Your task to perform on an android device: Open Yahoo.com Image 0: 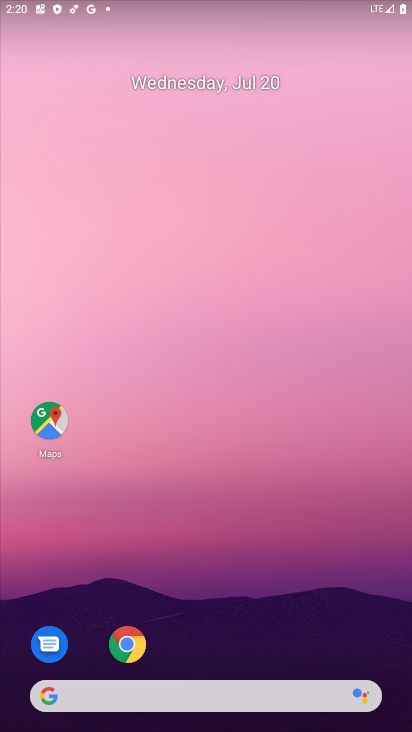
Step 0: click (128, 647)
Your task to perform on an android device: Open Yahoo.com Image 1: 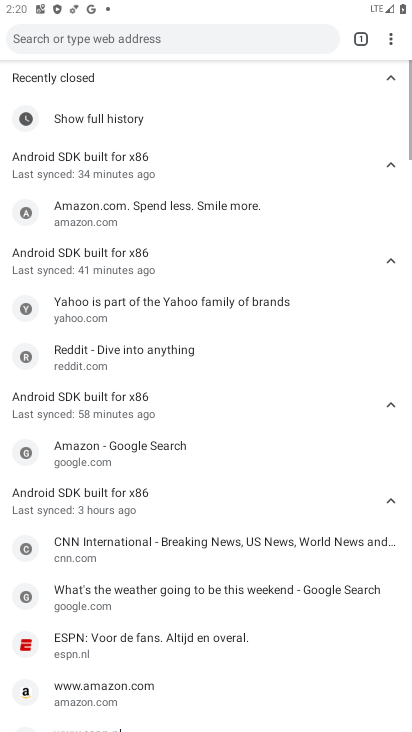
Step 1: click (181, 39)
Your task to perform on an android device: Open Yahoo.com Image 2: 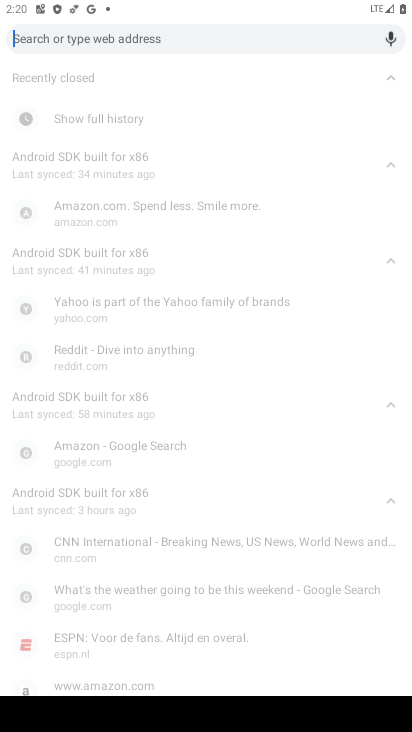
Step 2: type "Yahoo.com"
Your task to perform on an android device: Open Yahoo.com Image 3: 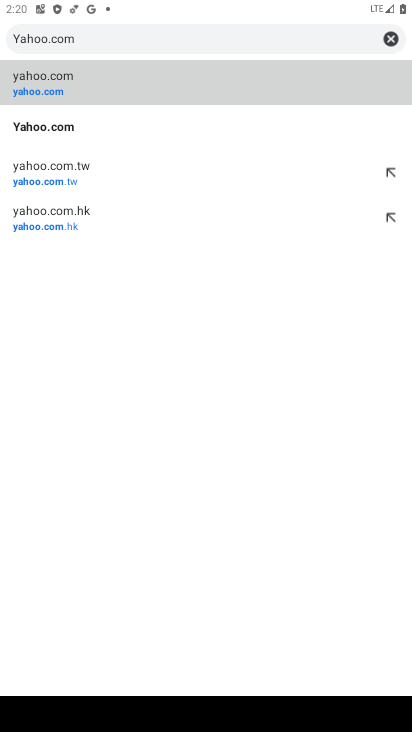
Step 3: click (54, 125)
Your task to perform on an android device: Open Yahoo.com Image 4: 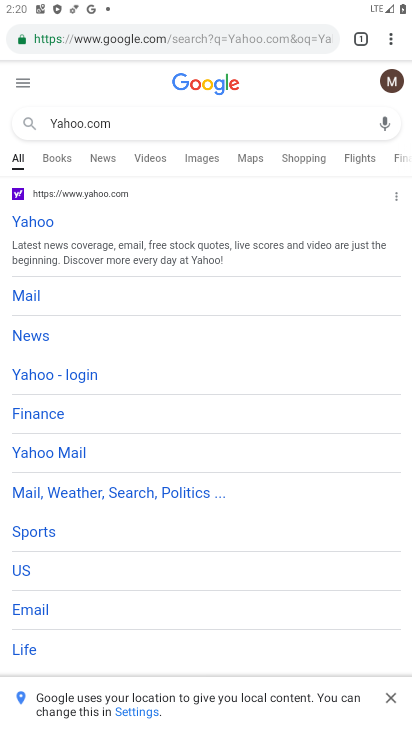
Step 4: click (31, 223)
Your task to perform on an android device: Open Yahoo.com Image 5: 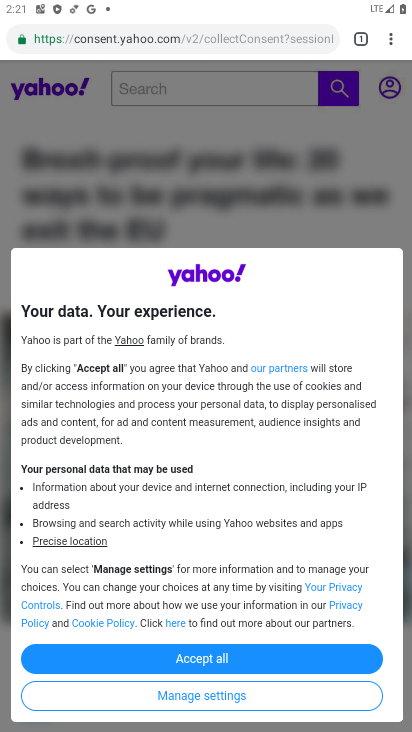
Step 5: click (207, 658)
Your task to perform on an android device: Open Yahoo.com Image 6: 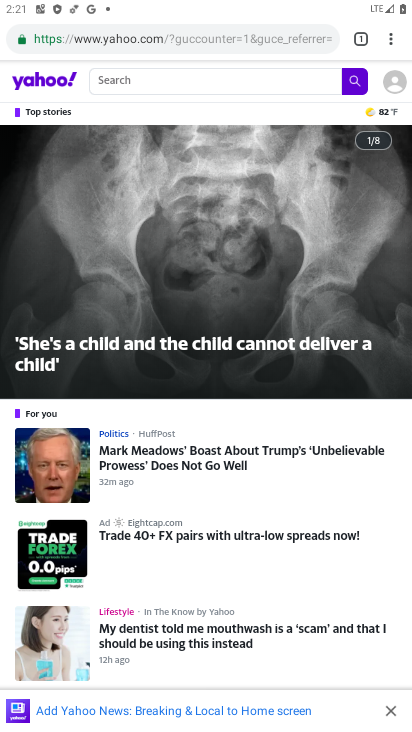
Step 6: task complete